Your task to perform on an android device: change notification settings in the gmail app Image 0: 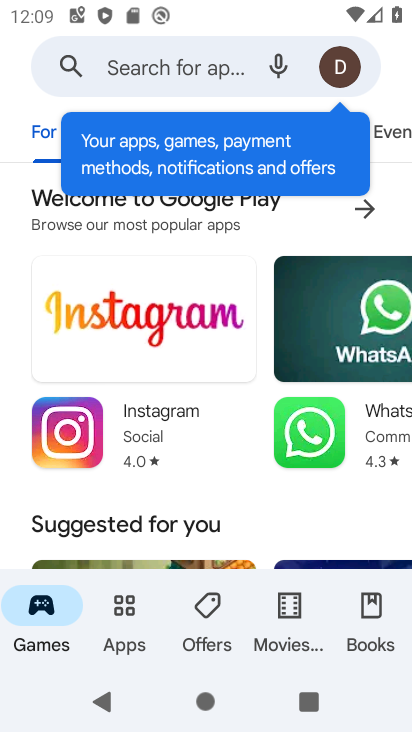
Step 0: press home button
Your task to perform on an android device: change notification settings in the gmail app Image 1: 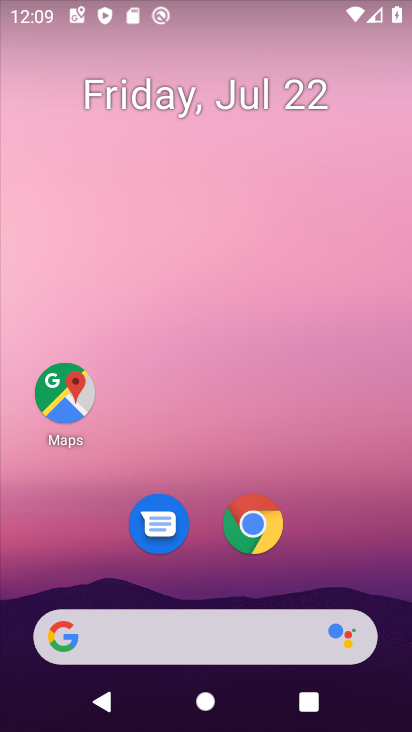
Step 1: drag from (337, 567) to (379, 101)
Your task to perform on an android device: change notification settings in the gmail app Image 2: 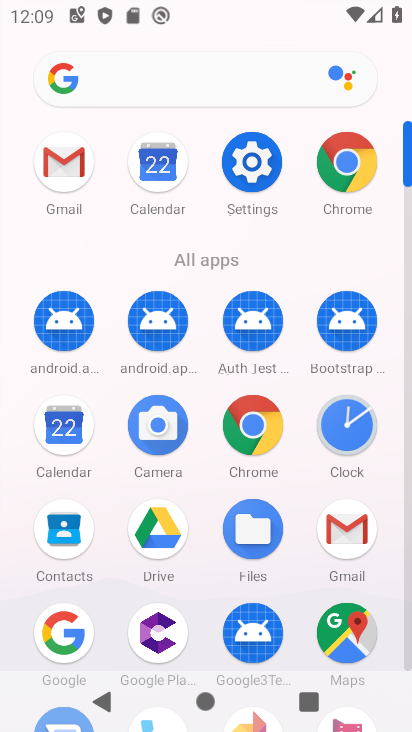
Step 2: click (81, 165)
Your task to perform on an android device: change notification settings in the gmail app Image 3: 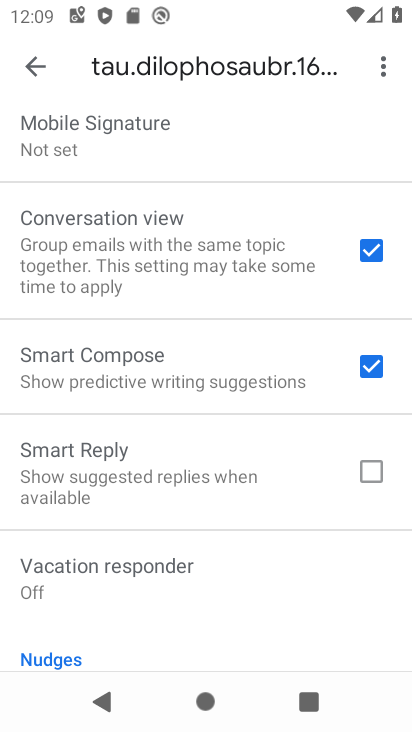
Step 3: drag from (223, 151) to (197, 580)
Your task to perform on an android device: change notification settings in the gmail app Image 4: 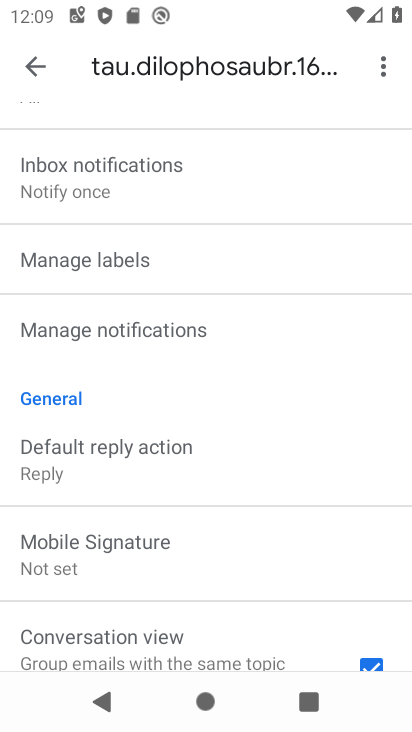
Step 4: click (195, 322)
Your task to perform on an android device: change notification settings in the gmail app Image 5: 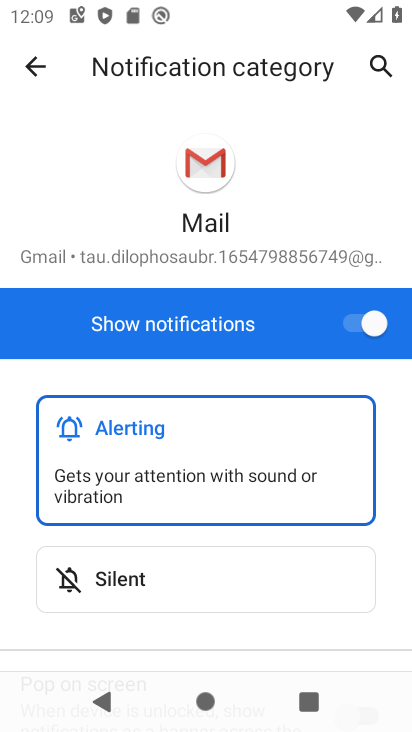
Step 5: click (364, 318)
Your task to perform on an android device: change notification settings in the gmail app Image 6: 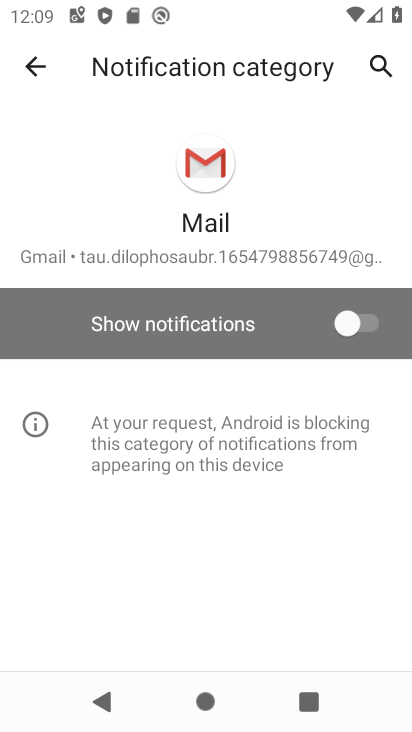
Step 6: task complete